Your task to perform on an android device: Open Google Chrome Image 0: 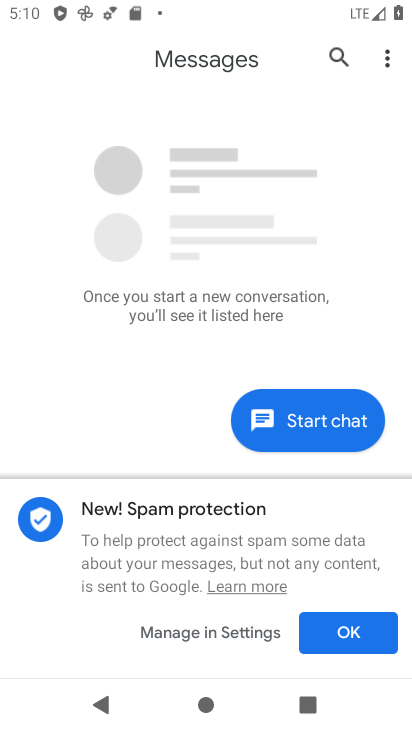
Step 0: press back button
Your task to perform on an android device: Open Google Chrome Image 1: 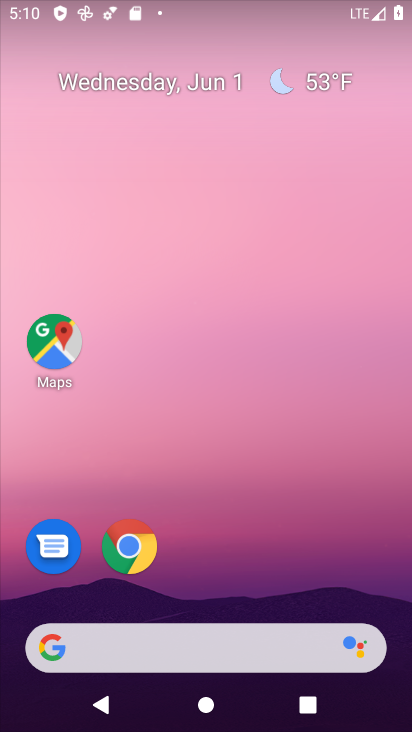
Step 1: drag from (278, 509) to (248, 76)
Your task to perform on an android device: Open Google Chrome Image 2: 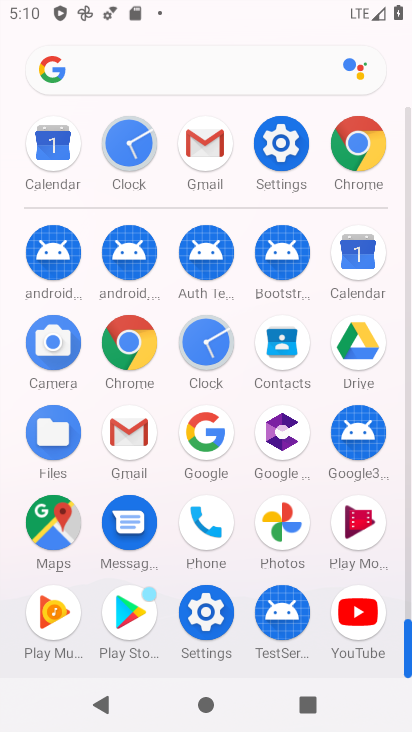
Step 2: click (134, 332)
Your task to perform on an android device: Open Google Chrome Image 3: 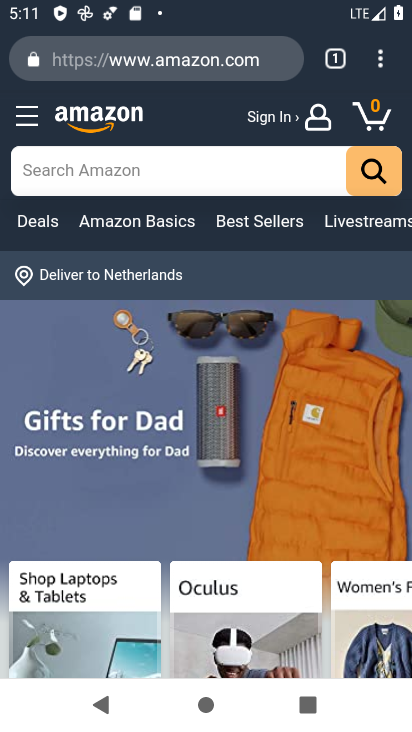
Step 3: task complete